Your task to perform on an android device: set the stopwatch Image 0: 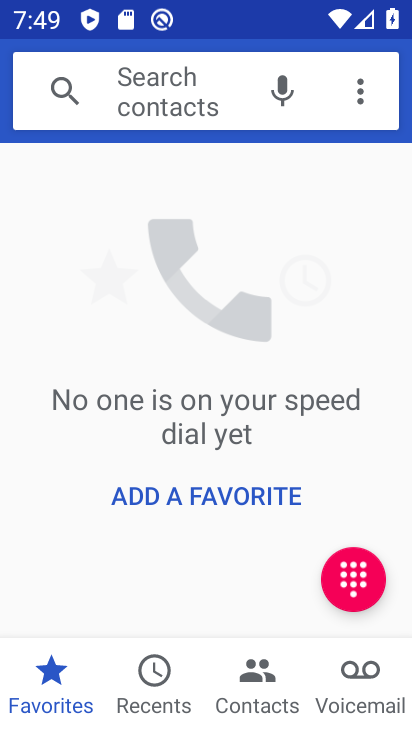
Step 0: press home button
Your task to perform on an android device: set the stopwatch Image 1: 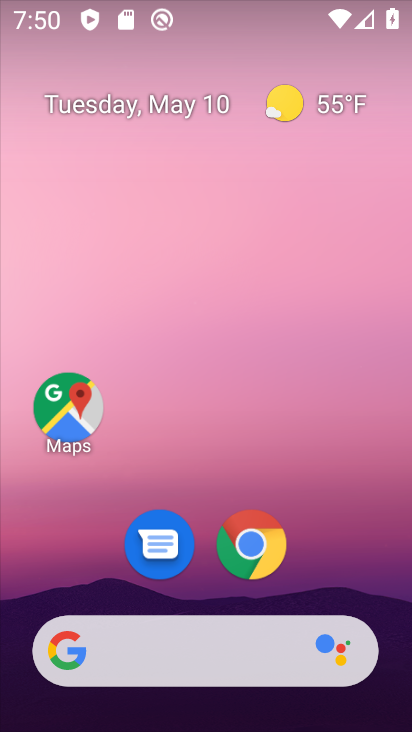
Step 1: drag from (194, 617) to (227, 138)
Your task to perform on an android device: set the stopwatch Image 2: 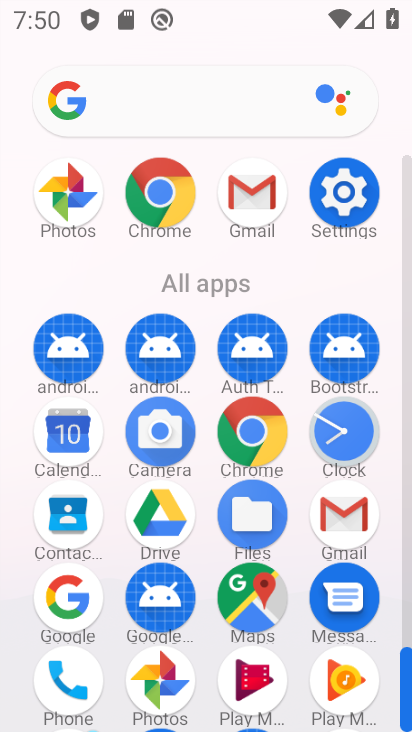
Step 2: click (345, 435)
Your task to perform on an android device: set the stopwatch Image 3: 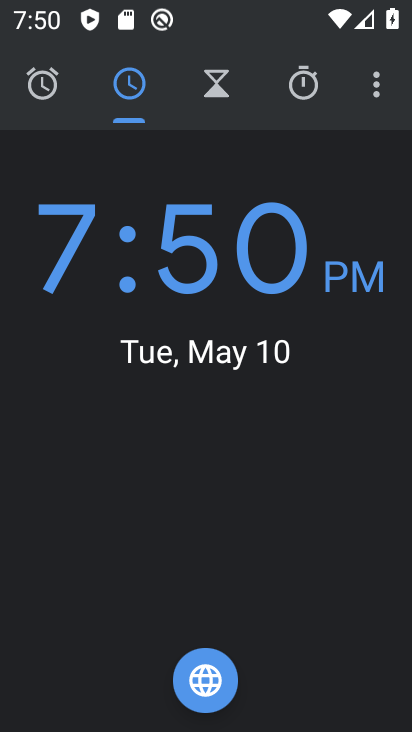
Step 3: click (300, 90)
Your task to perform on an android device: set the stopwatch Image 4: 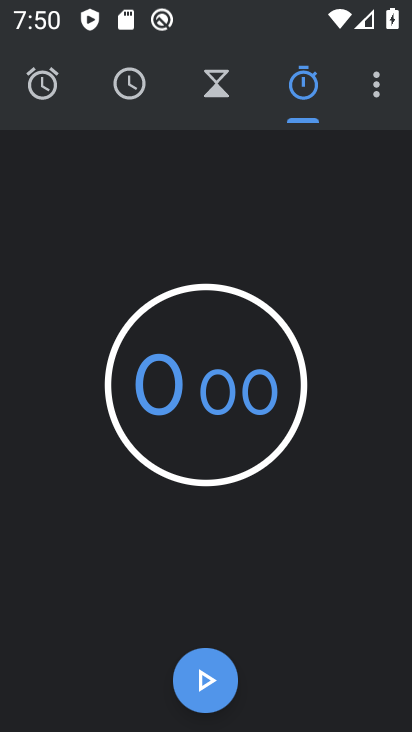
Step 4: click (203, 682)
Your task to perform on an android device: set the stopwatch Image 5: 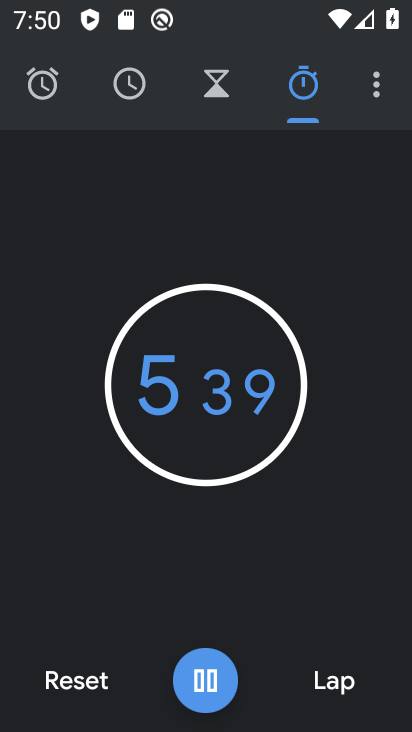
Step 5: click (203, 682)
Your task to perform on an android device: set the stopwatch Image 6: 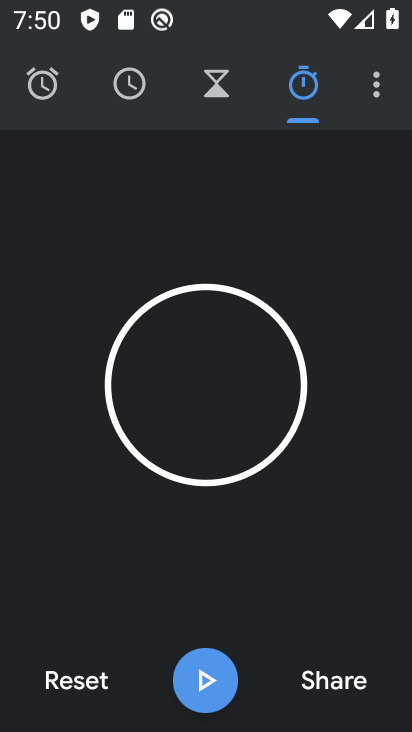
Step 6: task complete